Your task to perform on an android device: change the clock display to analog Image 0: 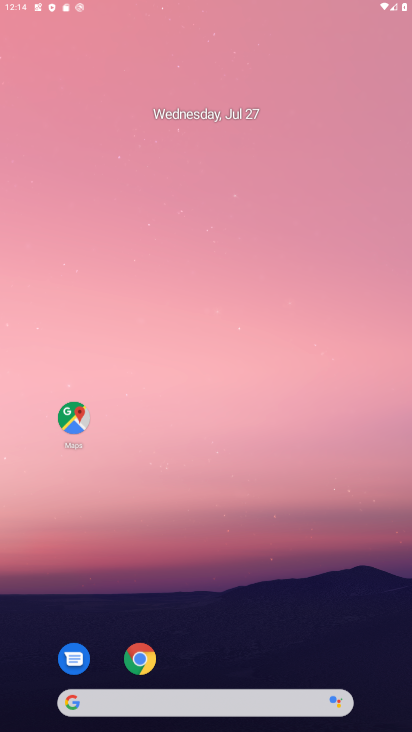
Step 0: press home button
Your task to perform on an android device: change the clock display to analog Image 1: 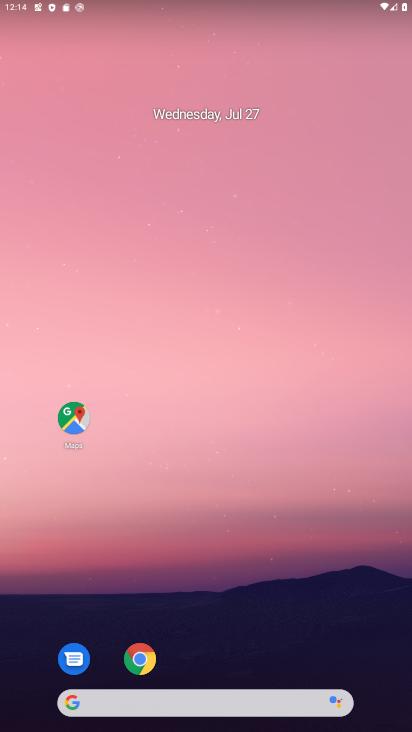
Step 1: drag from (222, 678) to (225, 0)
Your task to perform on an android device: change the clock display to analog Image 2: 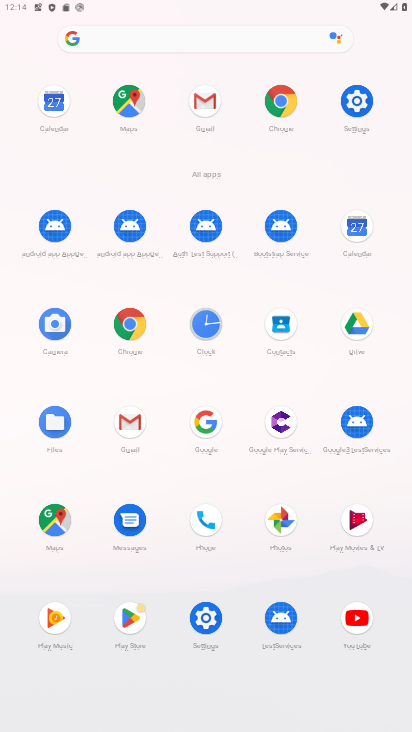
Step 2: click (207, 314)
Your task to perform on an android device: change the clock display to analog Image 3: 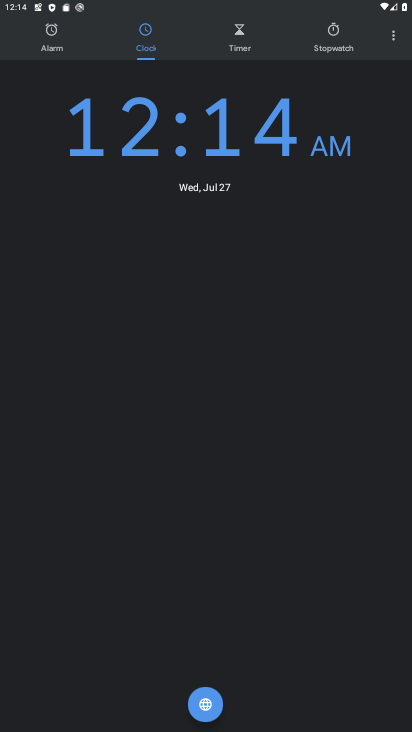
Step 3: click (396, 37)
Your task to perform on an android device: change the clock display to analog Image 4: 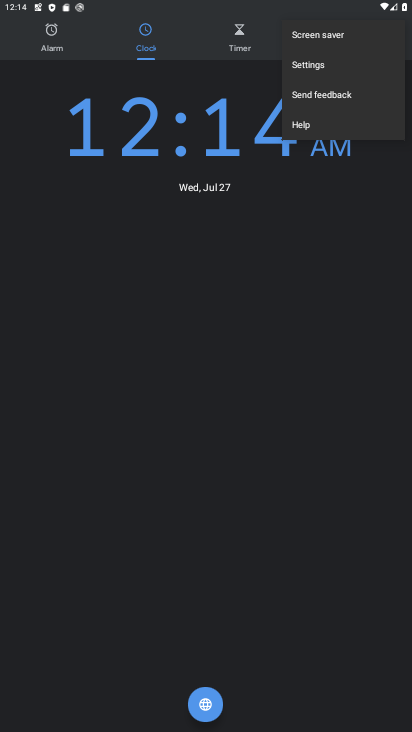
Step 4: click (336, 68)
Your task to perform on an android device: change the clock display to analog Image 5: 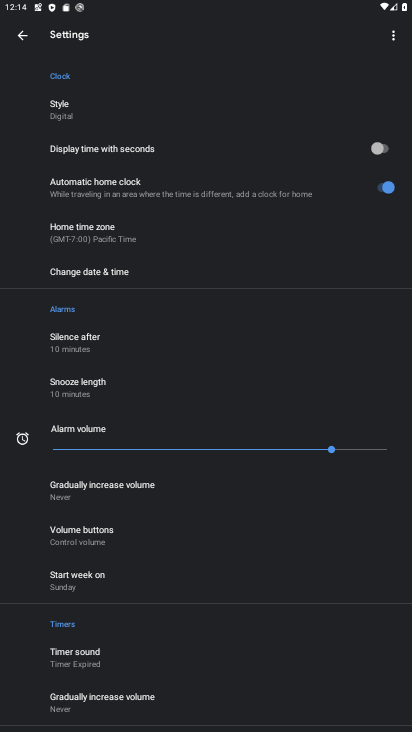
Step 5: click (71, 111)
Your task to perform on an android device: change the clock display to analog Image 6: 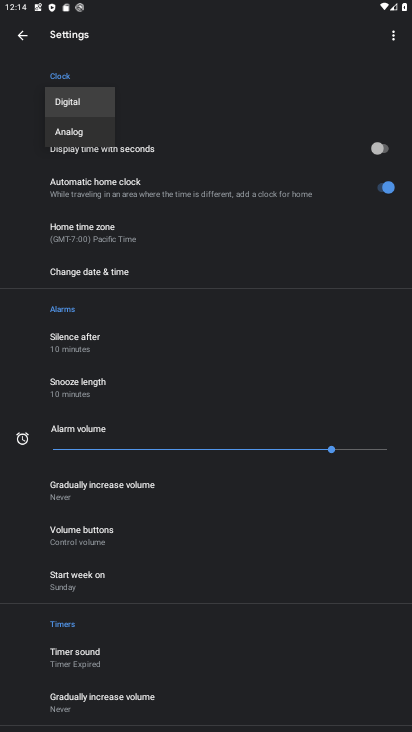
Step 6: click (86, 137)
Your task to perform on an android device: change the clock display to analog Image 7: 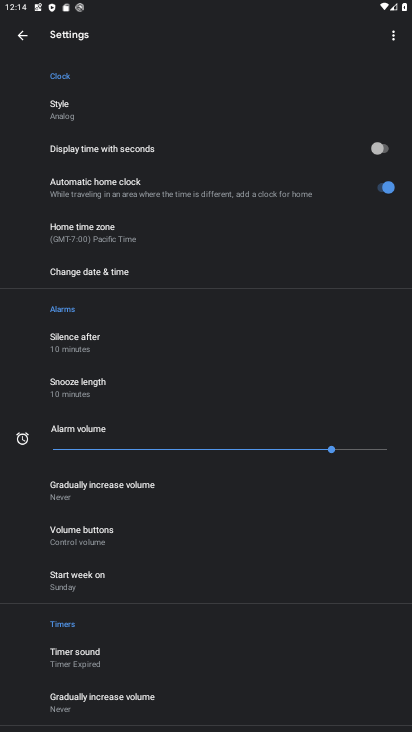
Step 7: task complete